Your task to perform on an android device: Show me the alarms in the clock app Image 0: 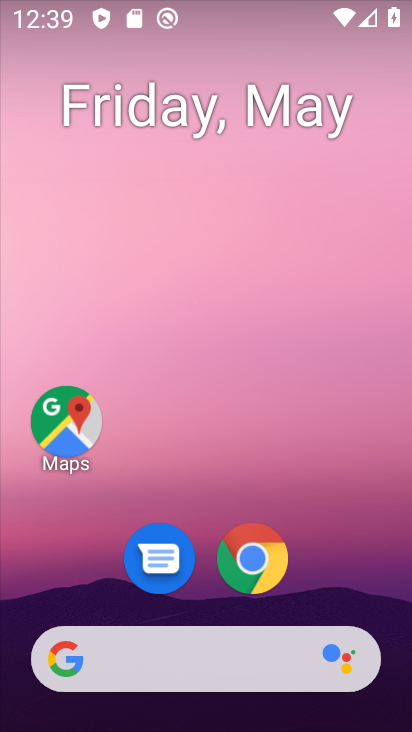
Step 0: drag from (362, 611) to (238, 154)
Your task to perform on an android device: Show me the alarms in the clock app Image 1: 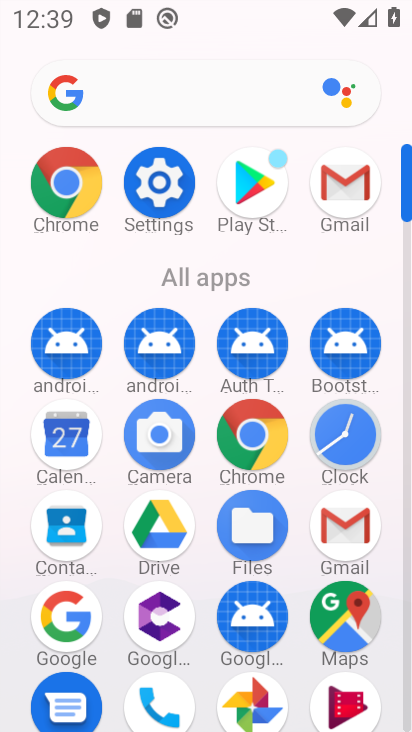
Step 1: click (342, 443)
Your task to perform on an android device: Show me the alarms in the clock app Image 2: 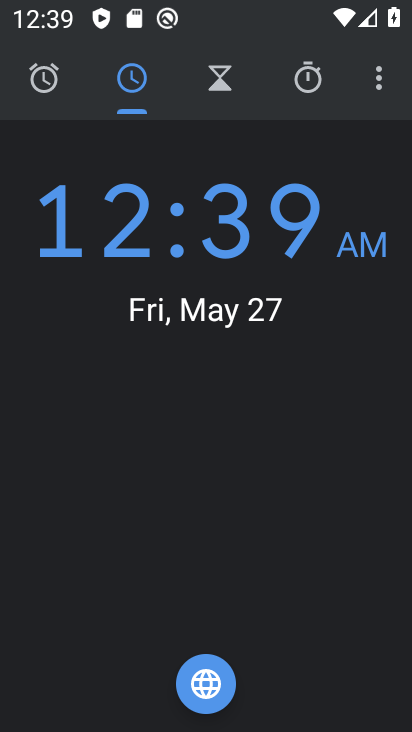
Step 2: click (48, 66)
Your task to perform on an android device: Show me the alarms in the clock app Image 3: 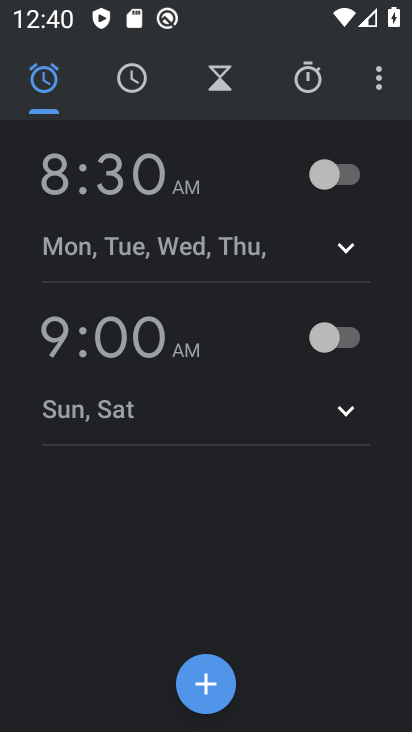
Step 3: task complete